Your task to perform on an android device: turn pop-ups off in chrome Image 0: 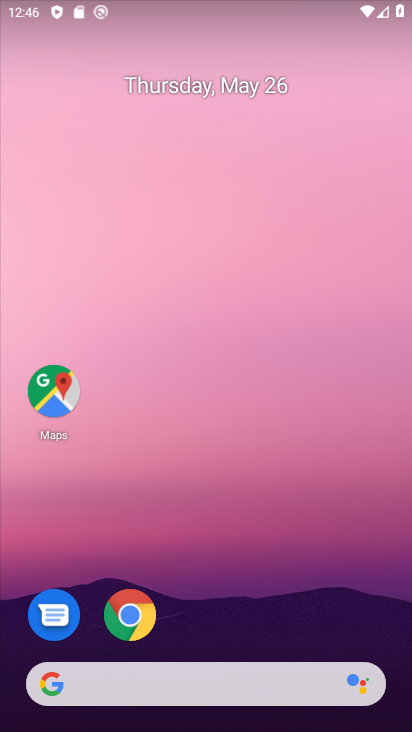
Step 0: click (132, 613)
Your task to perform on an android device: turn pop-ups off in chrome Image 1: 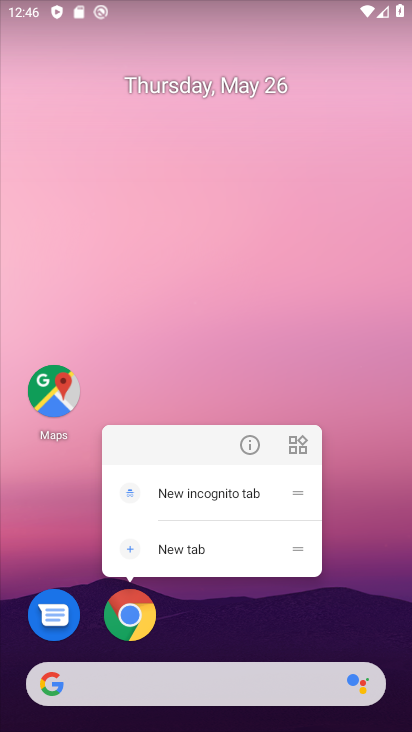
Step 1: click (125, 604)
Your task to perform on an android device: turn pop-ups off in chrome Image 2: 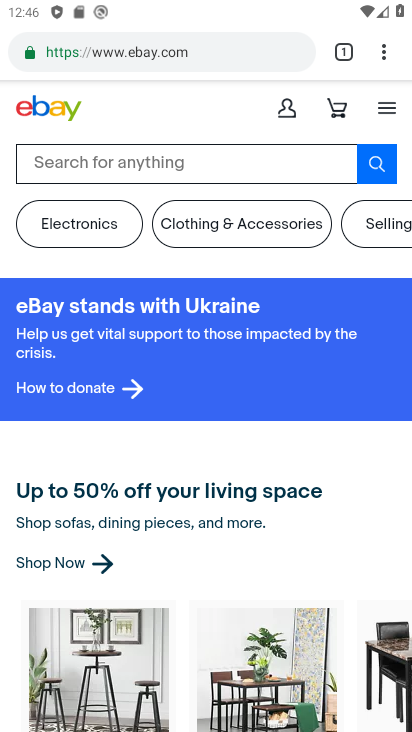
Step 2: drag from (385, 43) to (218, 623)
Your task to perform on an android device: turn pop-ups off in chrome Image 3: 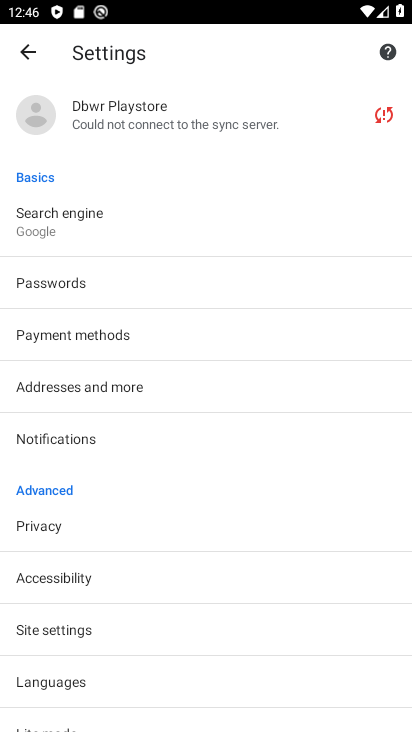
Step 3: click (64, 623)
Your task to perform on an android device: turn pop-ups off in chrome Image 4: 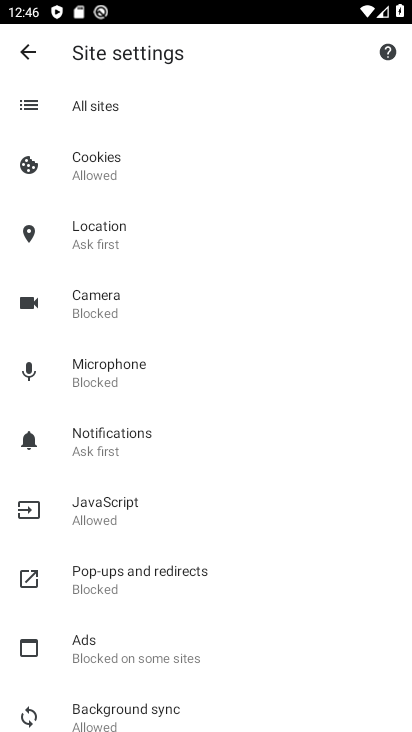
Step 4: click (123, 579)
Your task to perform on an android device: turn pop-ups off in chrome Image 5: 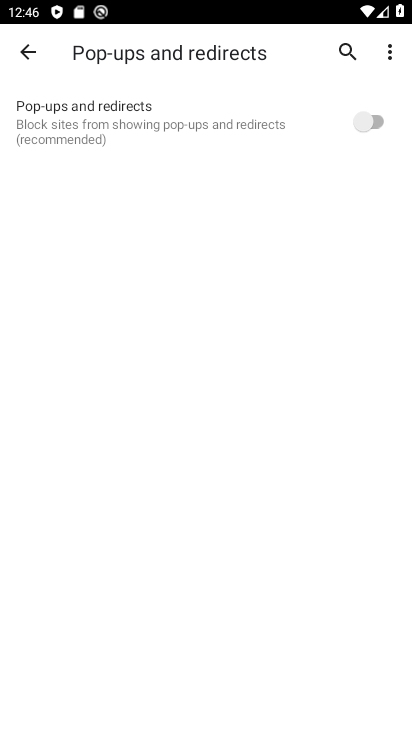
Step 5: task complete